Your task to perform on an android device: What's the weather today? Image 0: 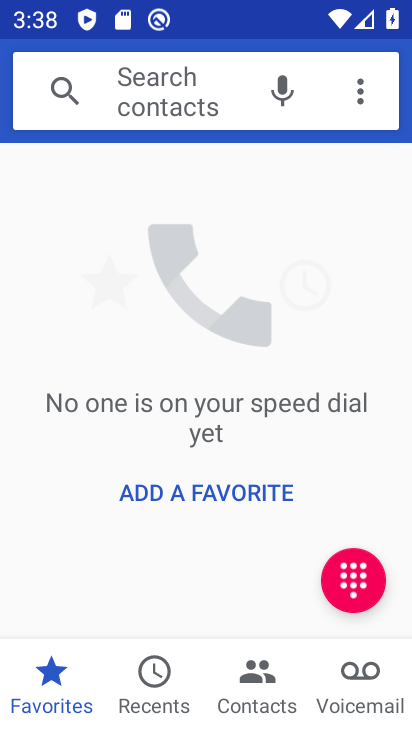
Step 0: press home button
Your task to perform on an android device: What's the weather today? Image 1: 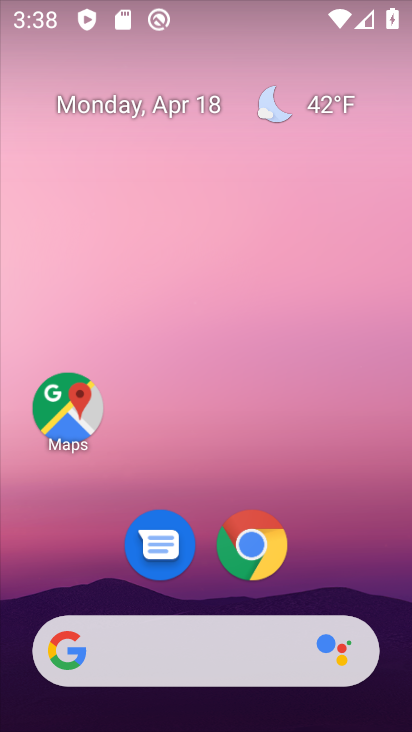
Step 1: click (227, 644)
Your task to perform on an android device: What's the weather today? Image 2: 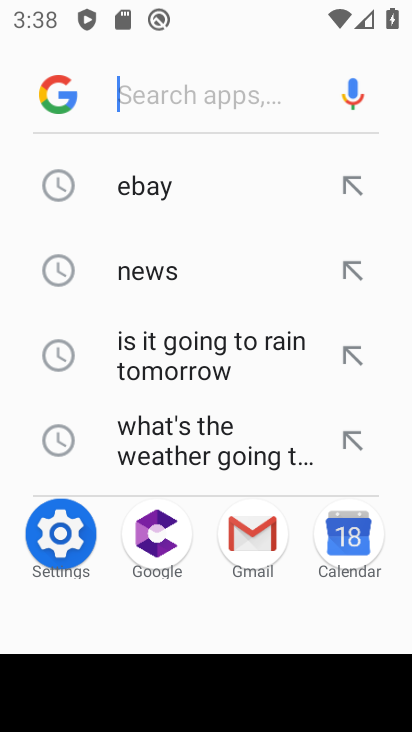
Step 2: click (210, 86)
Your task to perform on an android device: What's the weather today? Image 3: 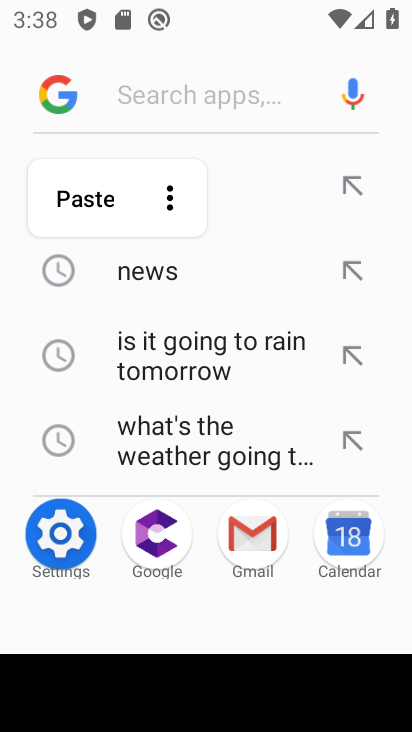
Step 3: type "weather"
Your task to perform on an android device: What's the weather today? Image 4: 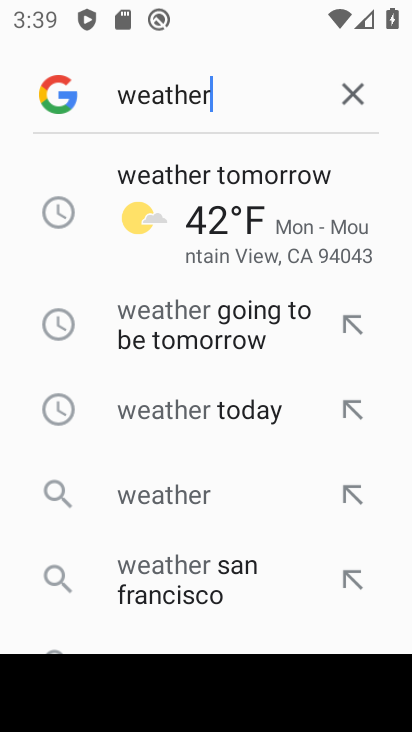
Step 4: click (209, 411)
Your task to perform on an android device: What's the weather today? Image 5: 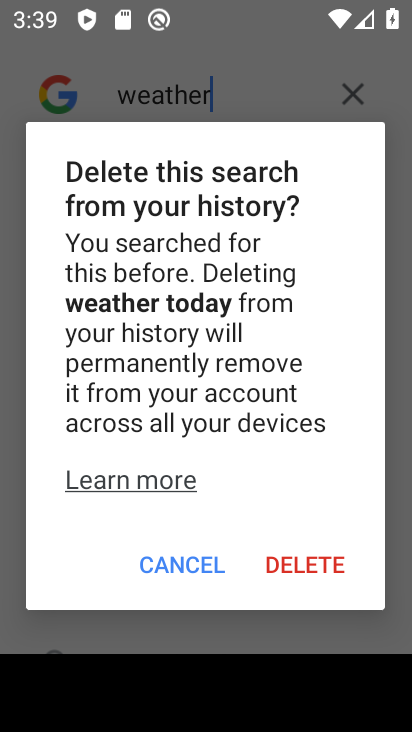
Step 5: click (197, 561)
Your task to perform on an android device: What's the weather today? Image 6: 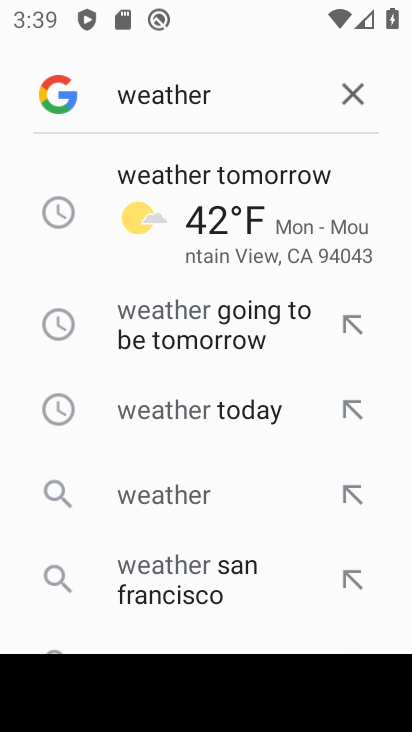
Step 6: click (211, 405)
Your task to perform on an android device: What's the weather today? Image 7: 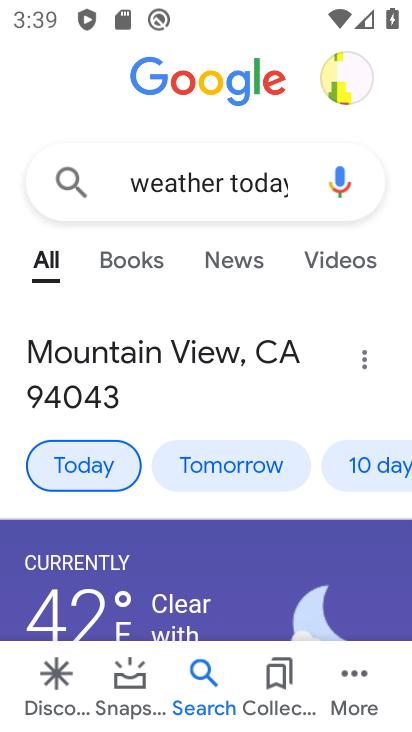
Step 7: task complete